Your task to perform on an android device: Go to settings Image 0: 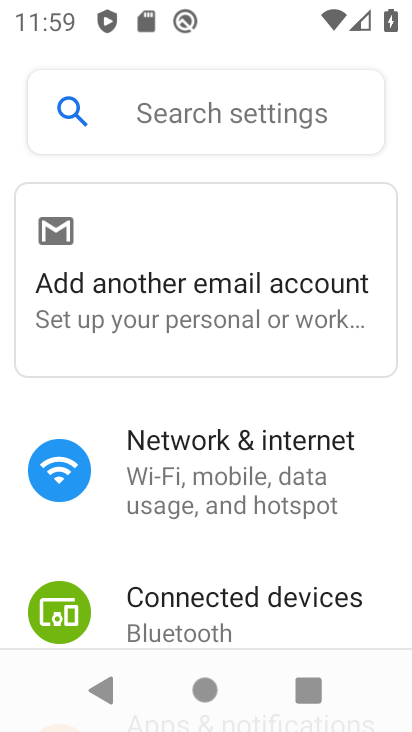
Step 0: task complete